Your task to perform on an android device: Show me popular games on the Play Store Image 0: 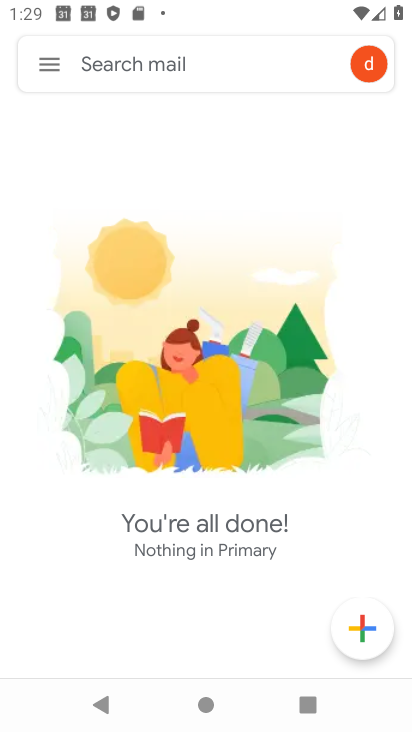
Step 0: press home button
Your task to perform on an android device: Show me popular games on the Play Store Image 1: 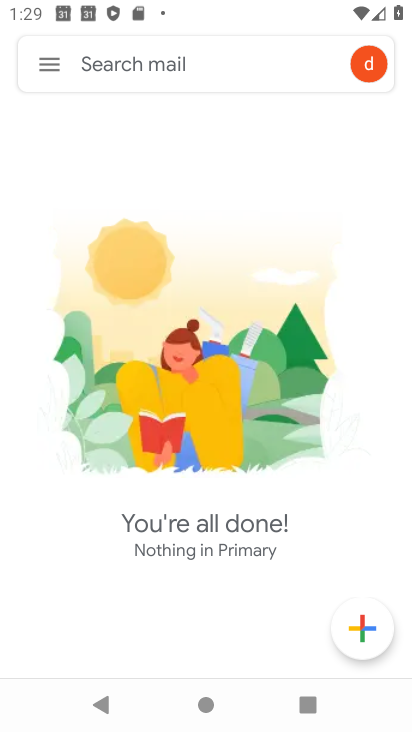
Step 1: drag from (125, 515) to (192, 65)
Your task to perform on an android device: Show me popular games on the Play Store Image 2: 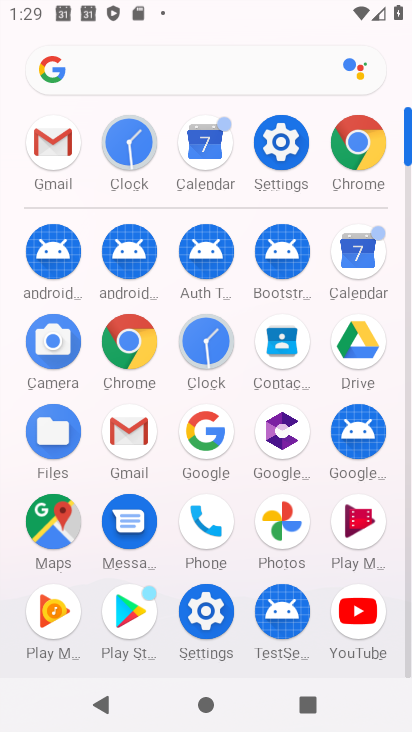
Step 2: click (143, 597)
Your task to perform on an android device: Show me popular games on the Play Store Image 3: 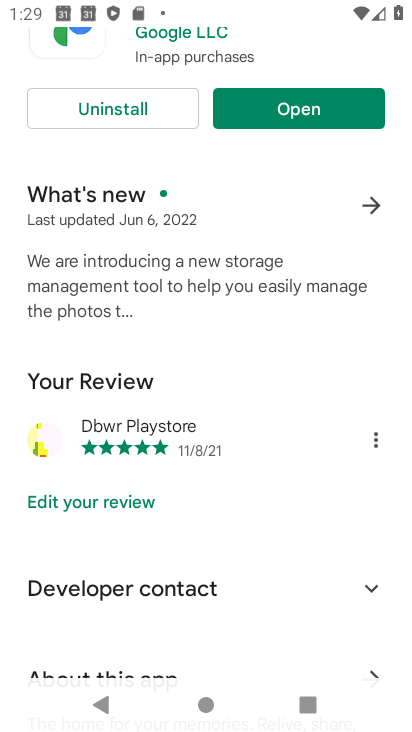
Step 3: press back button
Your task to perform on an android device: Show me popular games on the Play Store Image 4: 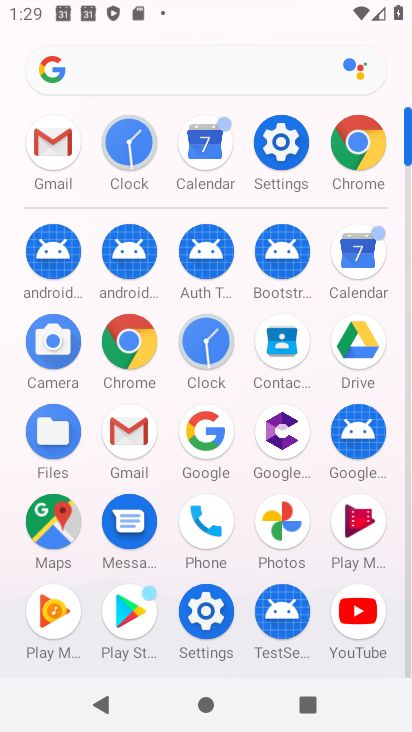
Step 4: click (113, 626)
Your task to perform on an android device: Show me popular games on the Play Store Image 5: 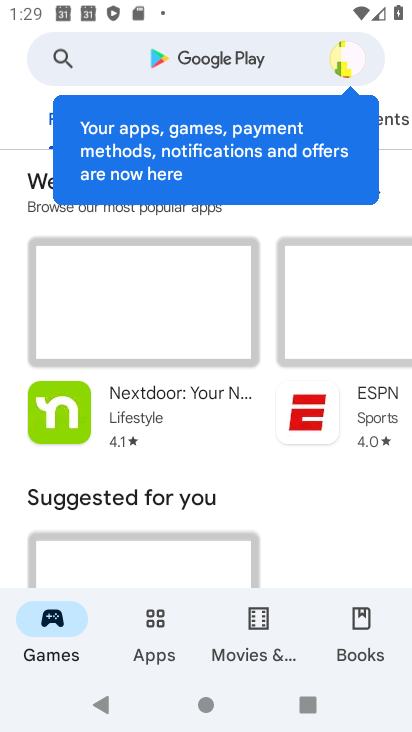
Step 5: drag from (215, 494) to (361, 33)
Your task to perform on an android device: Show me popular games on the Play Store Image 6: 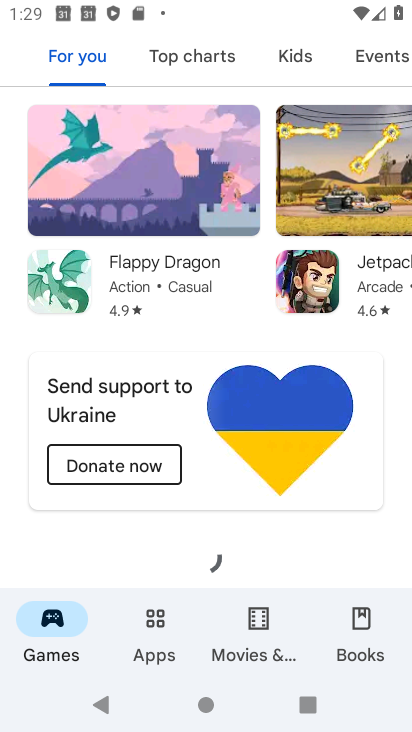
Step 6: drag from (226, 549) to (282, 110)
Your task to perform on an android device: Show me popular games on the Play Store Image 7: 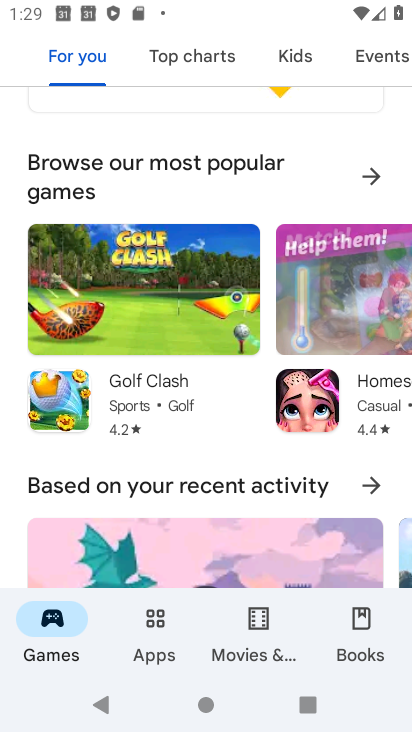
Step 7: click (369, 174)
Your task to perform on an android device: Show me popular games on the Play Store Image 8: 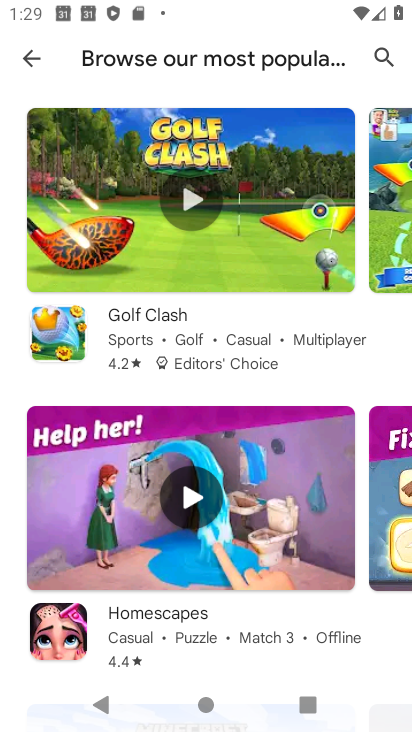
Step 8: task complete